Your task to perform on an android device: turn notification dots on Image 0: 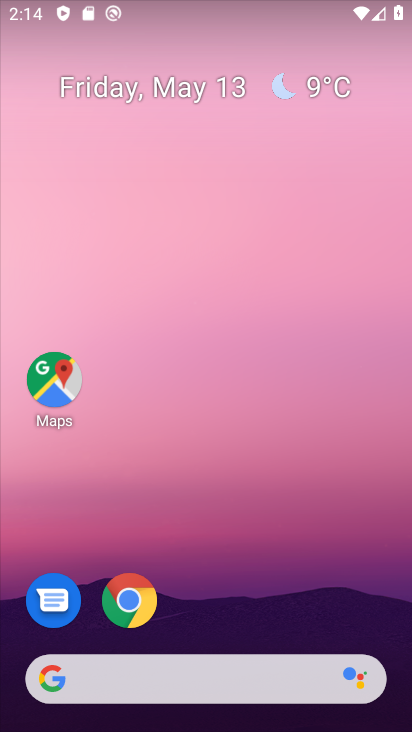
Step 0: drag from (240, 569) to (237, 48)
Your task to perform on an android device: turn notification dots on Image 1: 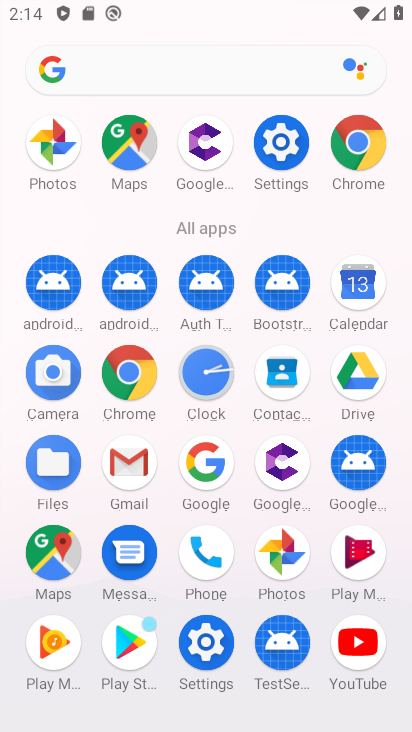
Step 1: click (288, 144)
Your task to perform on an android device: turn notification dots on Image 2: 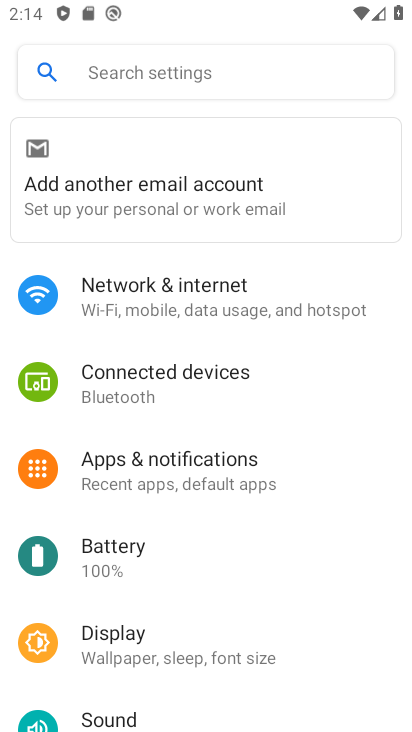
Step 2: click (194, 479)
Your task to perform on an android device: turn notification dots on Image 3: 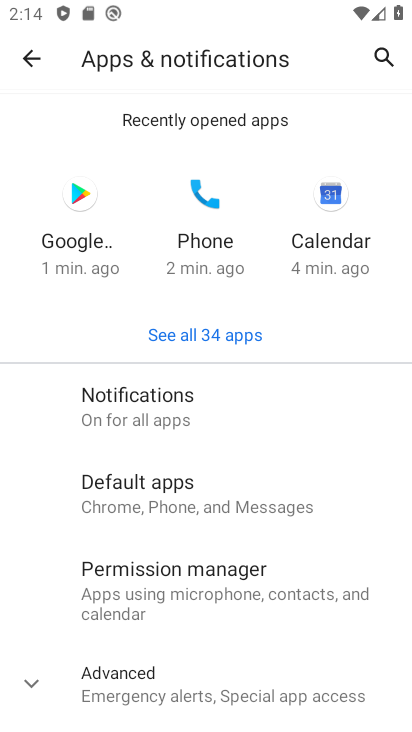
Step 3: drag from (269, 662) to (249, 283)
Your task to perform on an android device: turn notification dots on Image 4: 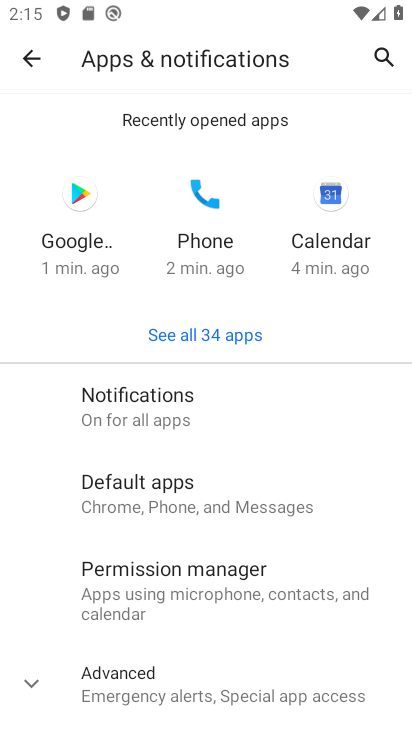
Step 4: click (196, 404)
Your task to perform on an android device: turn notification dots on Image 5: 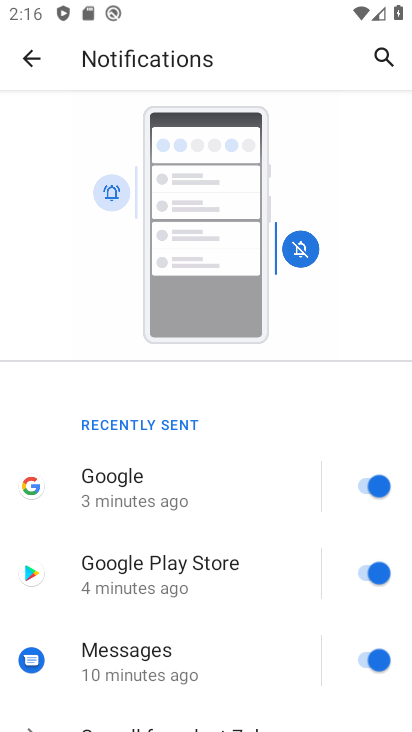
Step 5: drag from (266, 579) to (292, 254)
Your task to perform on an android device: turn notification dots on Image 6: 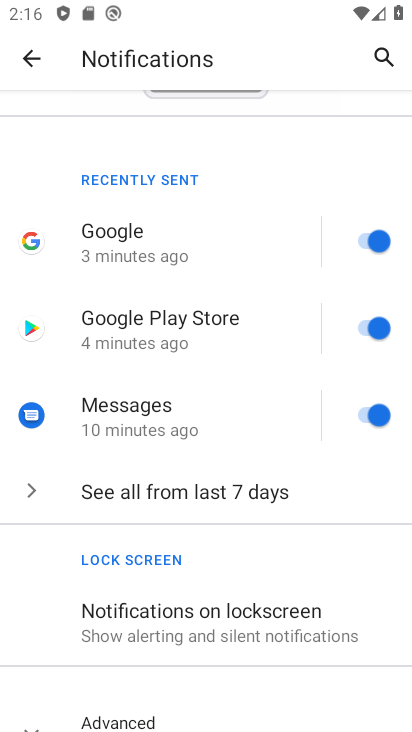
Step 6: drag from (267, 636) to (295, 302)
Your task to perform on an android device: turn notification dots on Image 7: 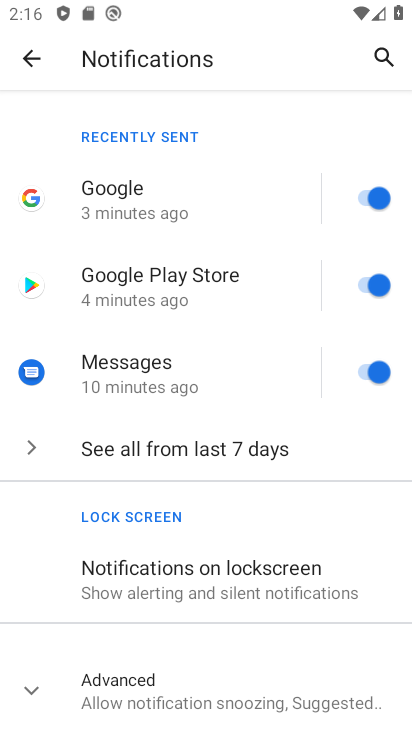
Step 7: click (238, 695)
Your task to perform on an android device: turn notification dots on Image 8: 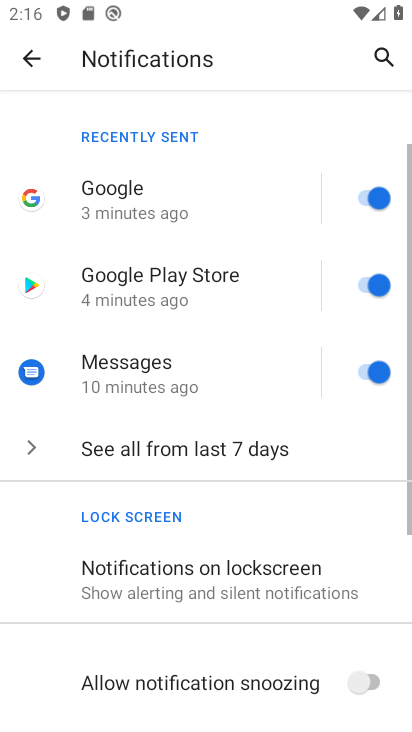
Step 8: task complete